Your task to perform on an android device: Open calendar and show me the first week of next month Image 0: 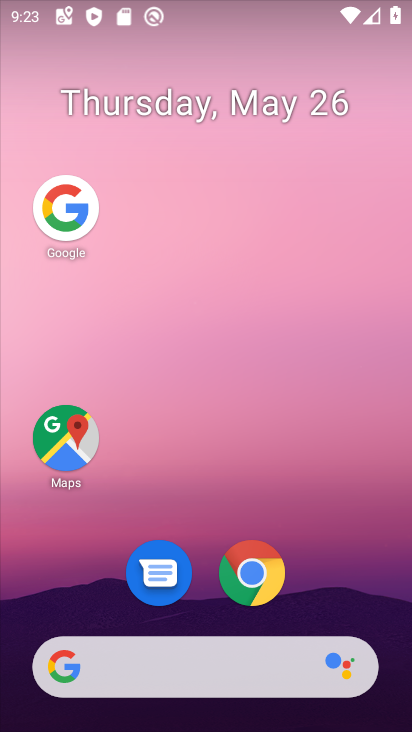
Step 0: drag from (311, 587) to (282, 84)
Your task to perform on an android device: Open calendar and show me the first week of next month Image 1: 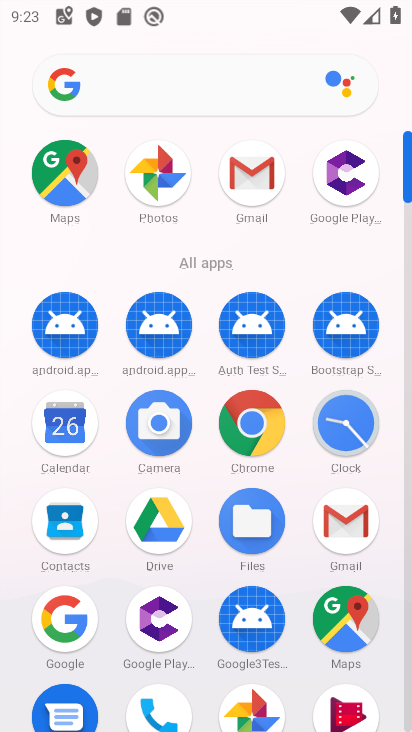
Step 1: drag from (54, 430) to (131, 227)
Your task to perform on an android device: Open calendar and show me the first week of next month Image 2: 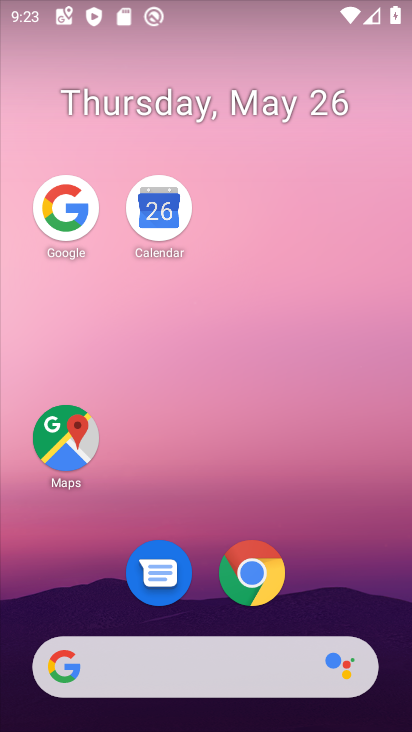
Step 2: drag from (166, 219) to (156, 299)
Your task to perform on an android device: Open calendar and show me the first week of next month Image 3: 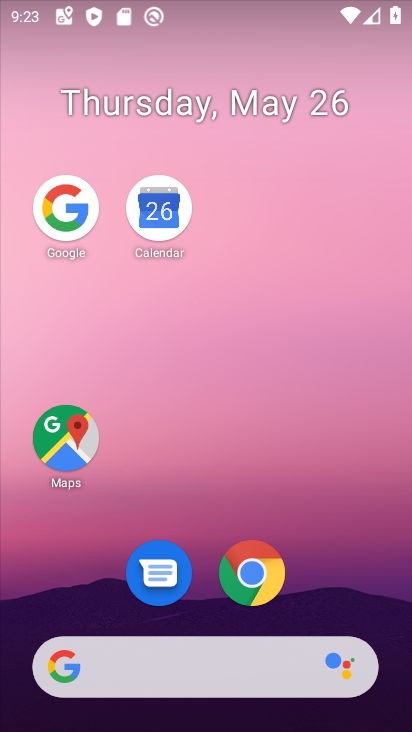
Step 3: drag from (155, 210) to (160, 392)
Your task to perform on an android device: Open calendar and show me the first week of next month Image 4: 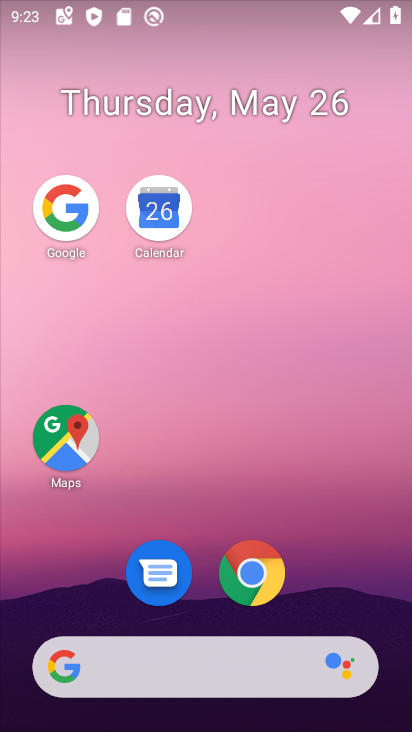
Step 4: click (151, 187)
Your task to perform on an android device: Open calendar and show me the first week of next month Image 5: 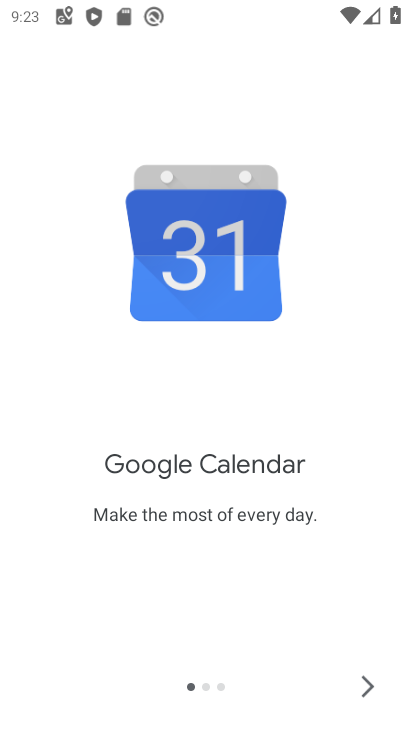
Step 5: click (377, 700)
Your task to perform on an android device: Open calendar and show me the first week of next month Image 6: 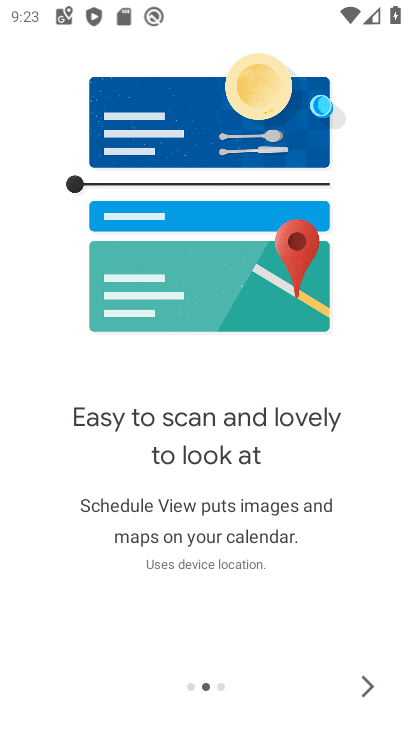
Step 6: click (377, 700)
Your task to perform on an android device: Open calendar and show me the first week of next month Image 7: 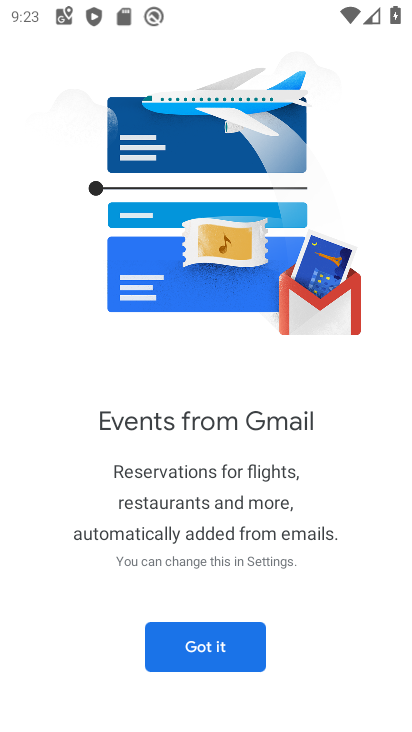
Step 7: click (200, 662)
Your task to perform on an android device: Open calendar and show me the first week of next month Image 8: 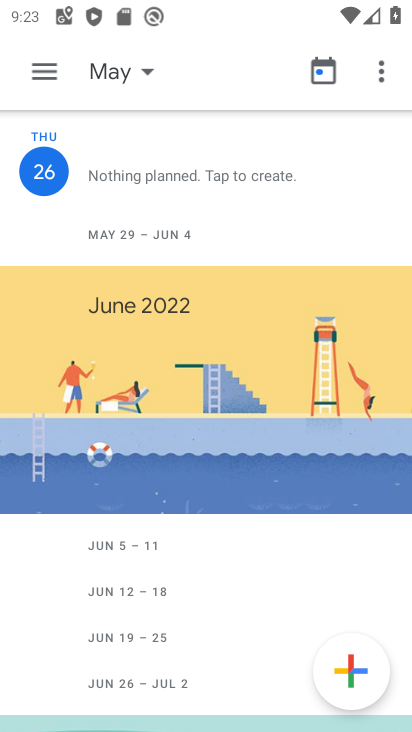
Step 8: click (134, 74)
Your task to perform on an android device: Open calendar and show me the first week of next month Image 9: 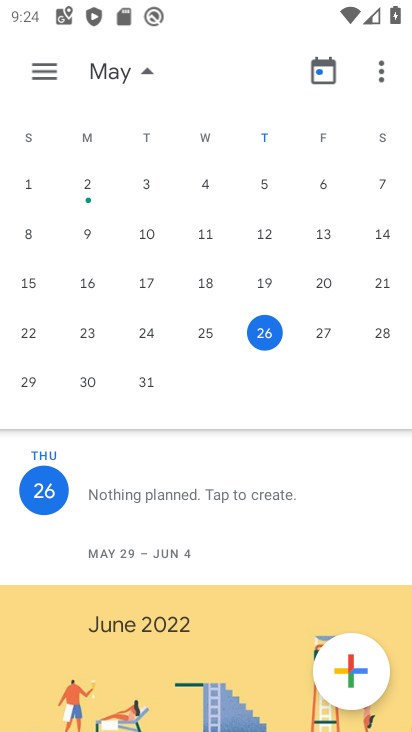
Step 9: drag from (394, 264) to (3, 231)
Your task to perform on an android device: Open calendar and show me the first week of next month Image 10: 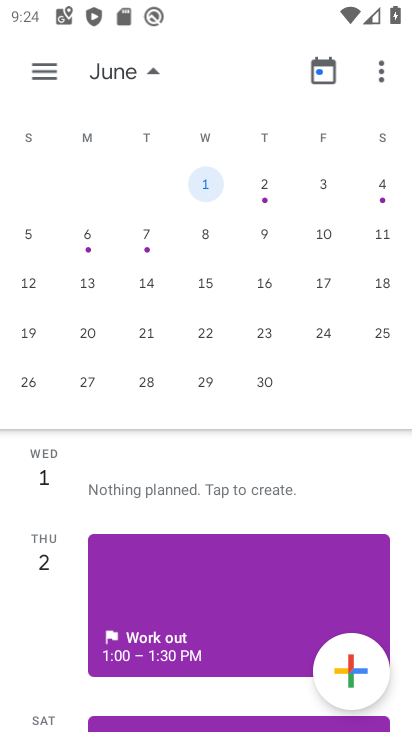
Step 10: click (39, 73)
Your task to perform on an android device: Open calendar and show me the first week of next month Image 11: 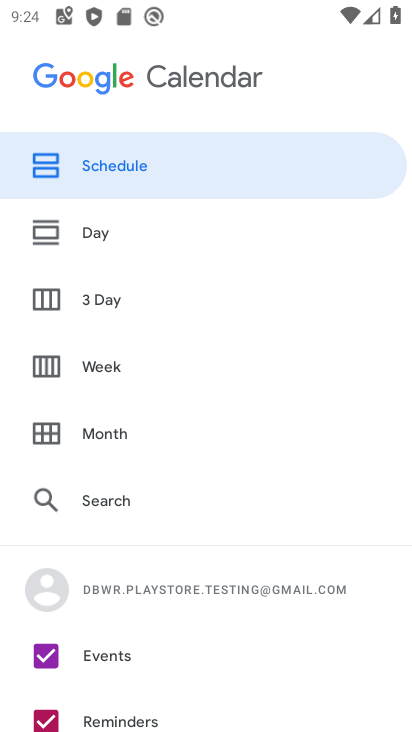
Step 11: click (151, 361)
Your task to perform on an android device: Open calendar and show me the first week of next month Image 12: 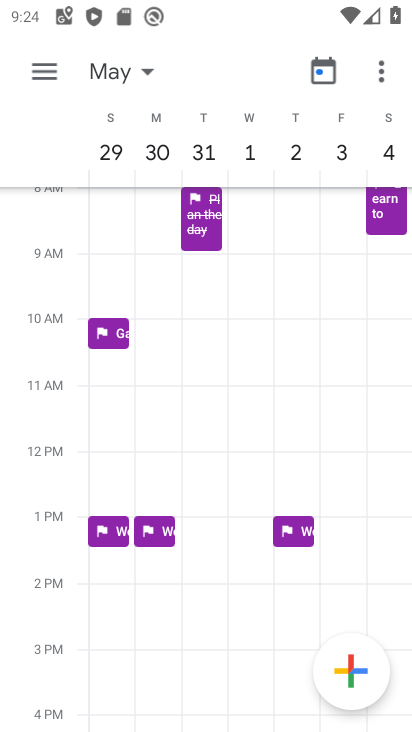
Step 12: task complete